Your task to perform on an android device: add a contact Image 0: 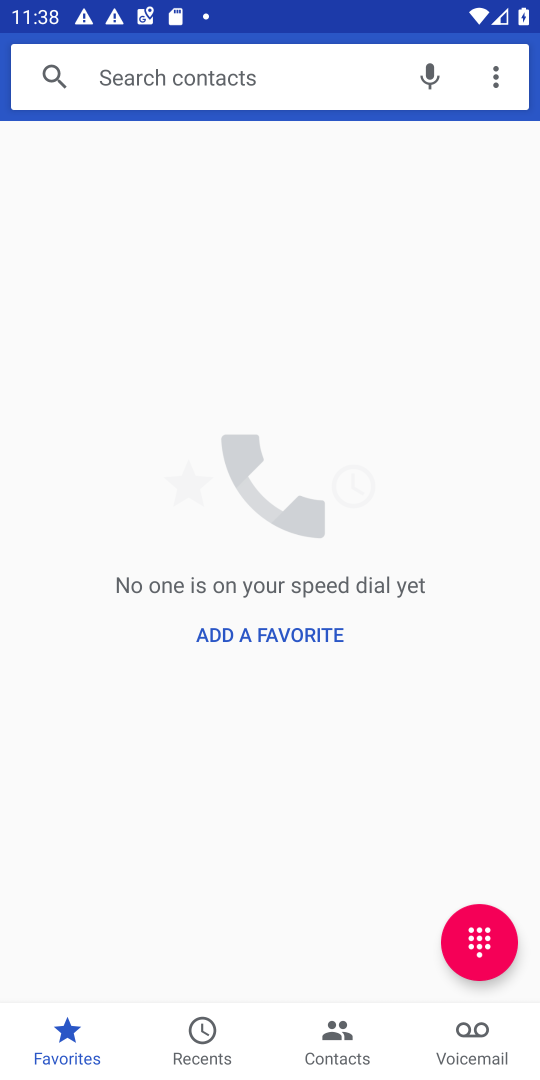
Step 0: press home button
Your task to perform on an android device: add a contact Image 1: 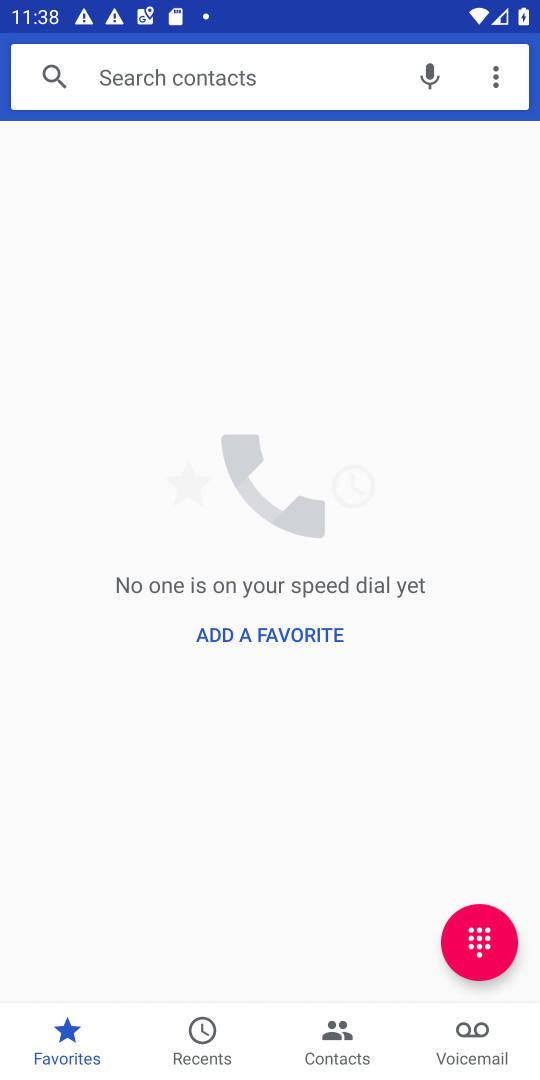
Step 1: press home button
Your task to perform on an android device: add a contact Image 2: 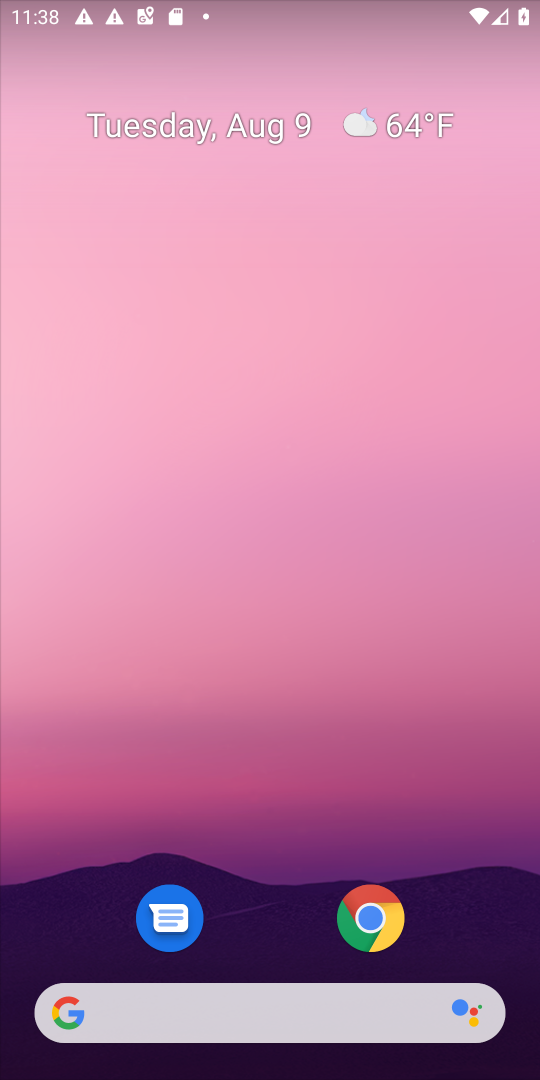
Step 2: drag from (254, 941) to (327, 310)
Your task to perform on an android device: add a contact Image 3: 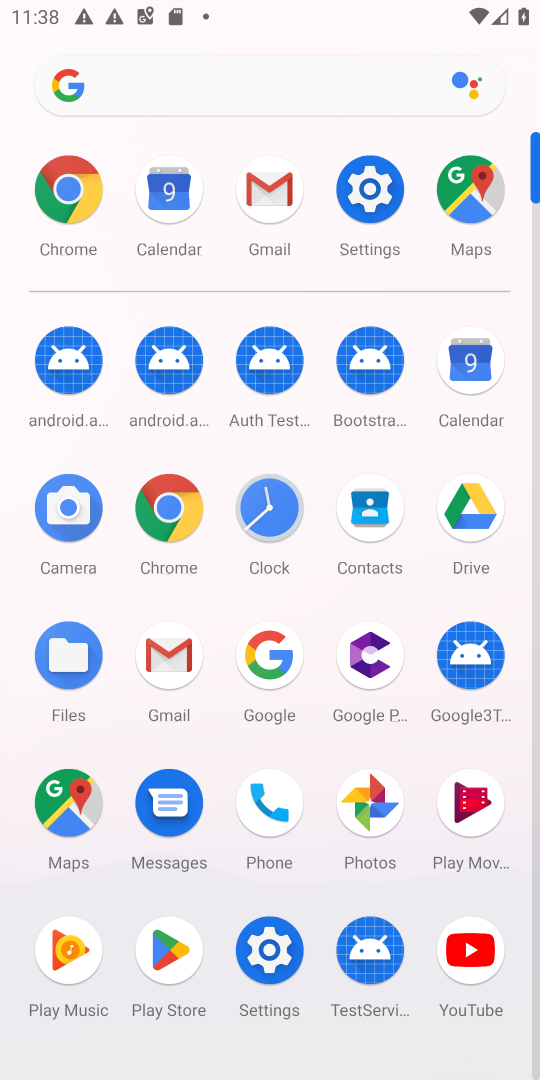
Step 3: click (378, 512)
Your task to perform on an android device: add a contact Image 4: 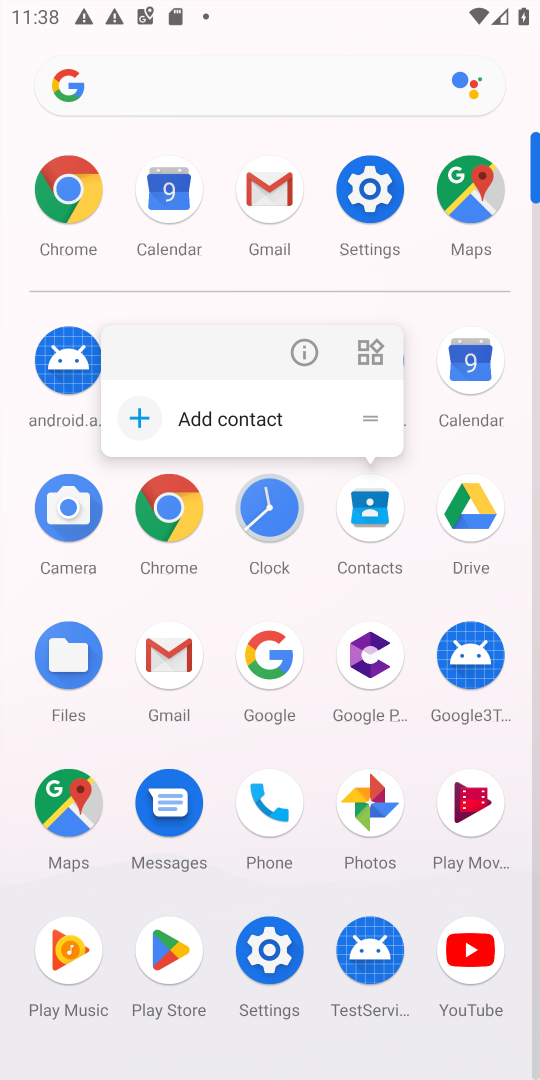
Step 4: click (378, 512)
Your task to perform on an android device: add a contact Image 5: 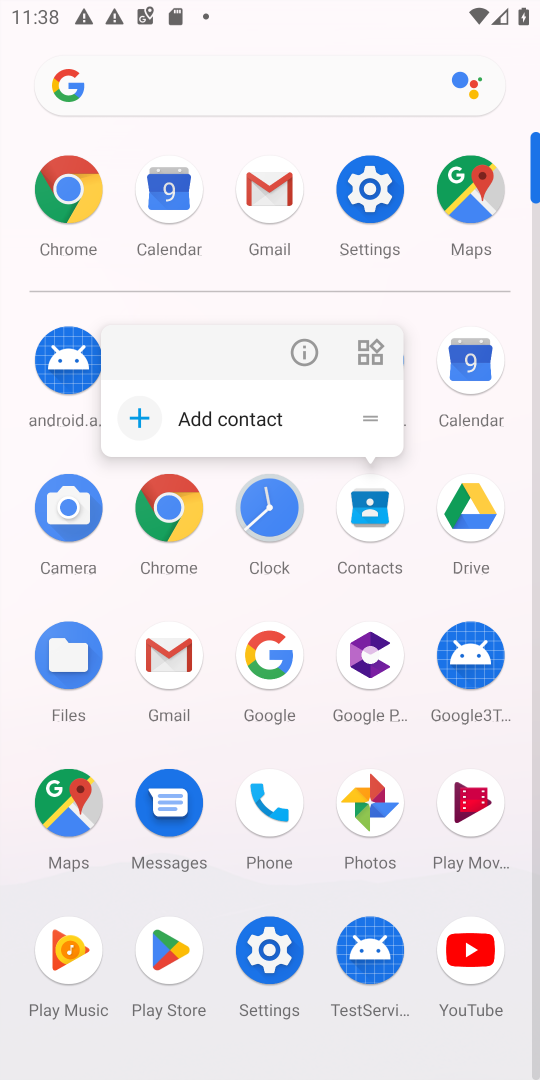
Step 5: click (372, 512)
Your task to perform on an android device: add a contact Image 6: 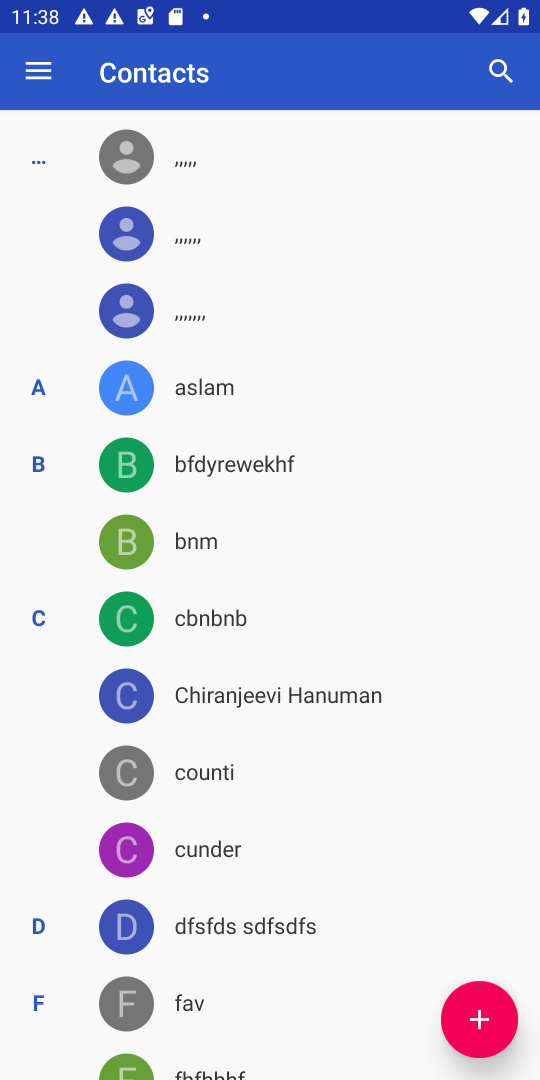
Step 6: click (480, 1041)
Your task to perform on an android device: add a contact Image 7: 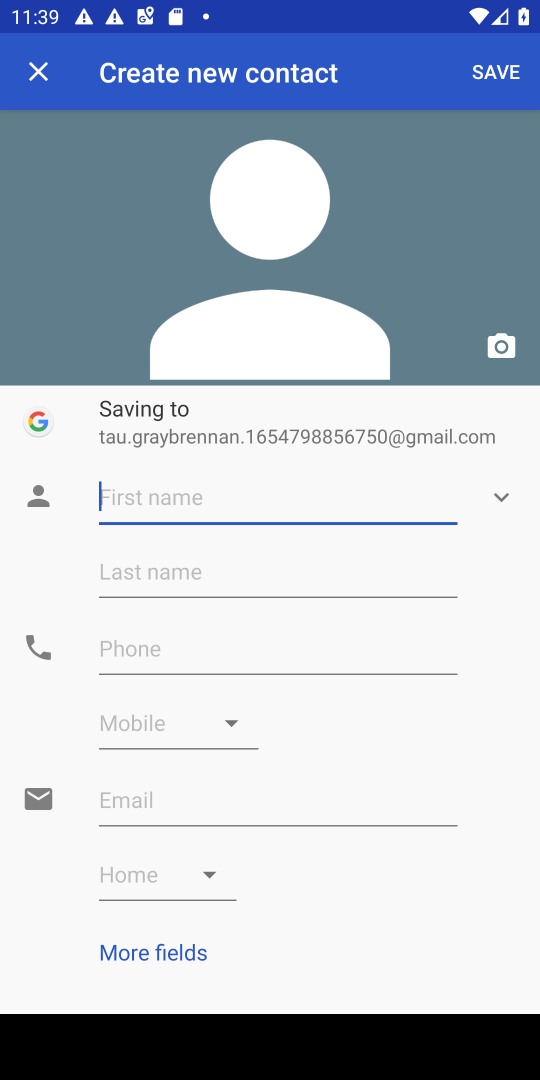
Step 7: type "plkj"
Your task to perform on an android device: add a contact Image 8: 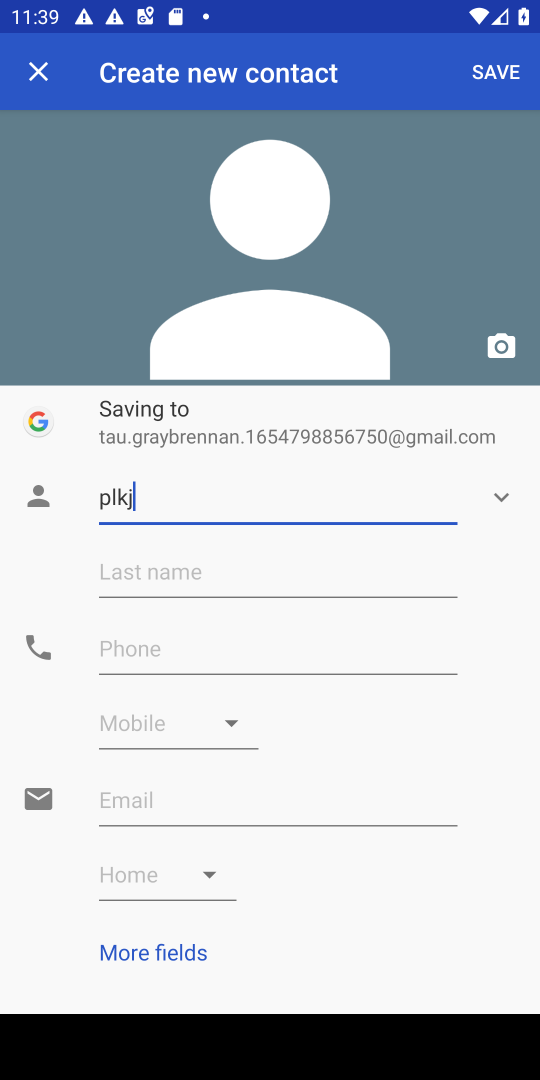
Step 8: click (515, 85)
Your task to perform on an android device: add a contact Image 9: 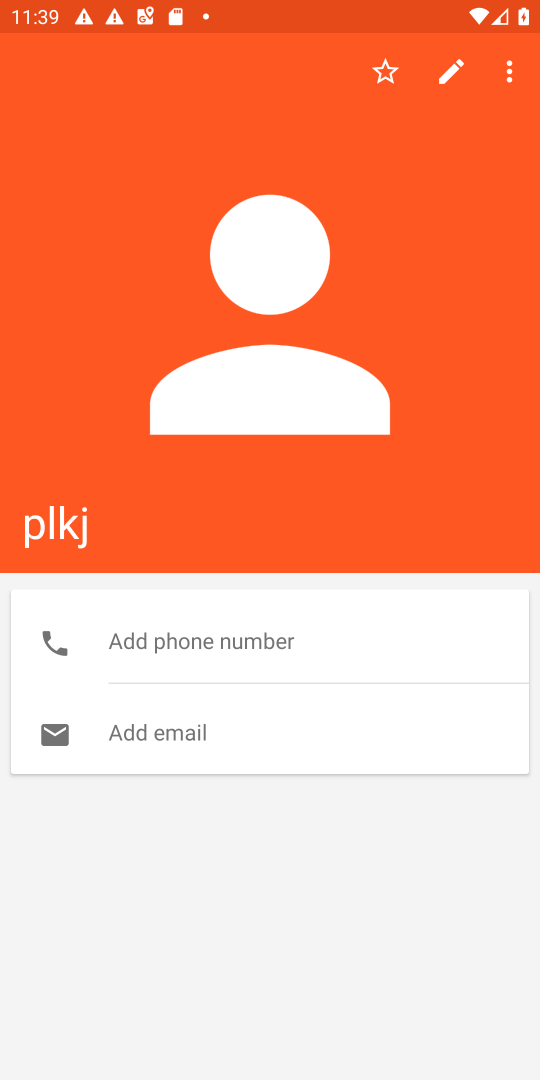
Step 9: task complete